Your task to perform on an android device: turn off priority inbox in the gmail app Image 0: 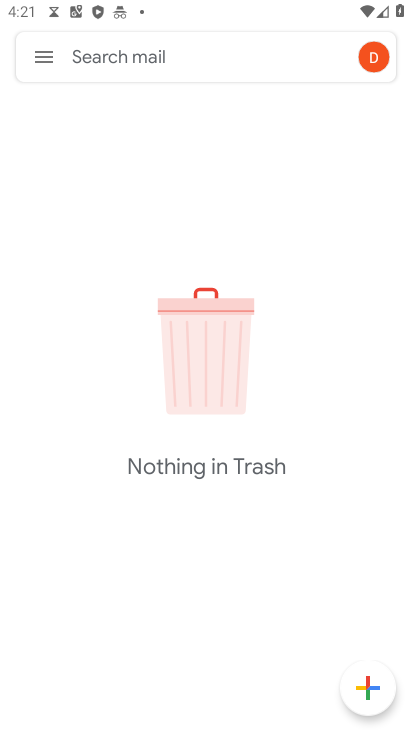
Step 0: press back button
Your task to perform on an android device: turn off priority inbox in the gmail app Image 1: 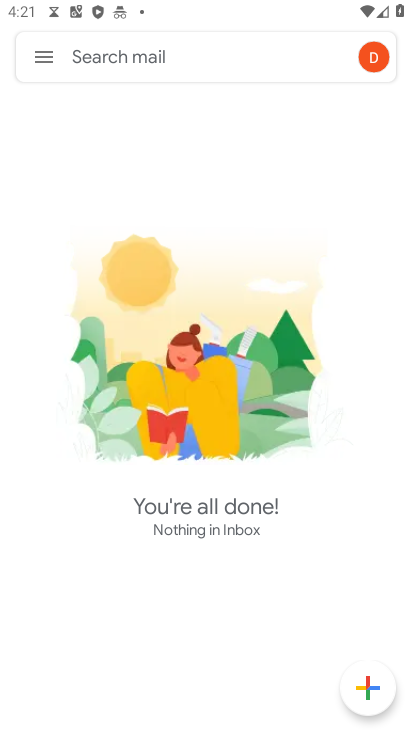
Step 1: click (37, 52)
Your task to perform on an android device: turn off priority inbox in the gmail app Image 2: 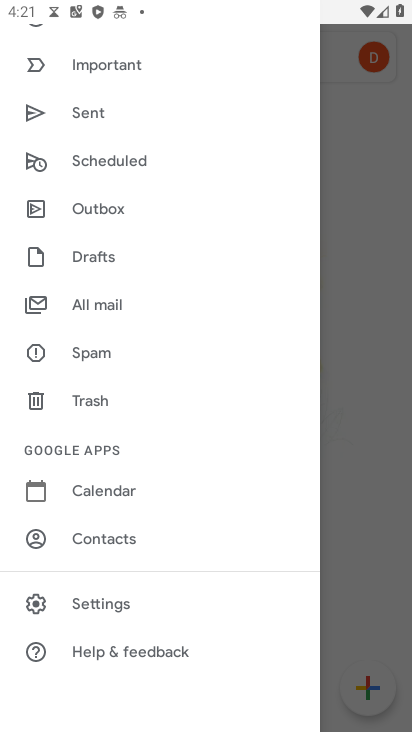
Step 2: click (99, 596)
Your task to perform on an android device: turn off priority inbox in the gmail app Image 3: 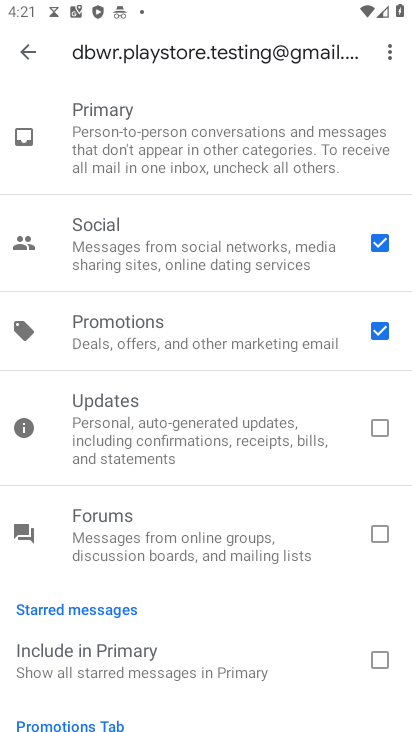
Step 3: click (32, 50)
Your task to perform on an android device: turn off priority inbox in the gmail app Image 4: 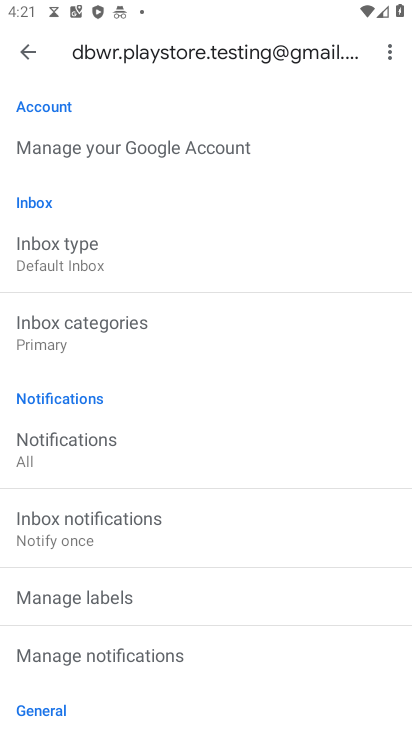
Step 4: click (44, 255)
Your task to perform on an android device: turn off priority inbox in the gmail app Image 5: 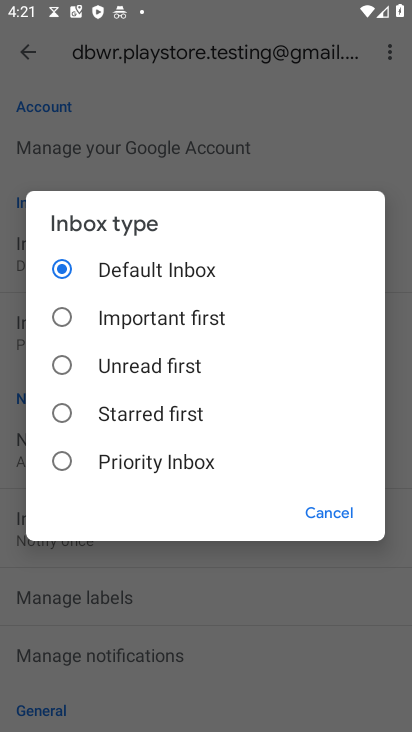
Step 5: click (334, 514)
Your task to perform on an android device: turn off priority inbox in the gmail app Image 6: 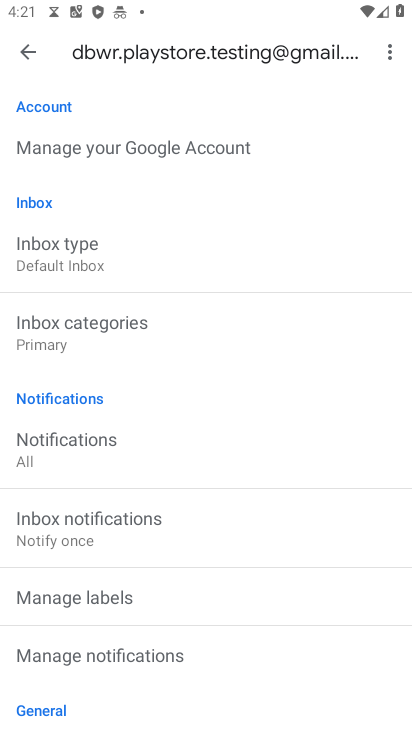
Step 6: click (46, 247)
Your task to perform on an android device: turn off priority inbox in the gmail app Image 7: 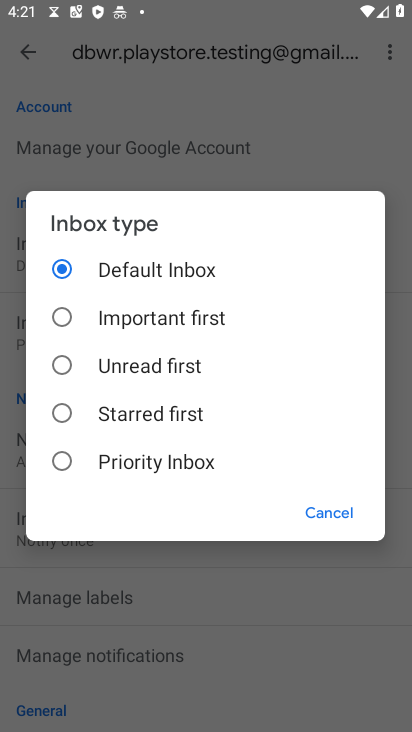
Step 7: click (310, 509)
Your task to perform on an android device: turn off priority inbox in the gmail app Image 8: 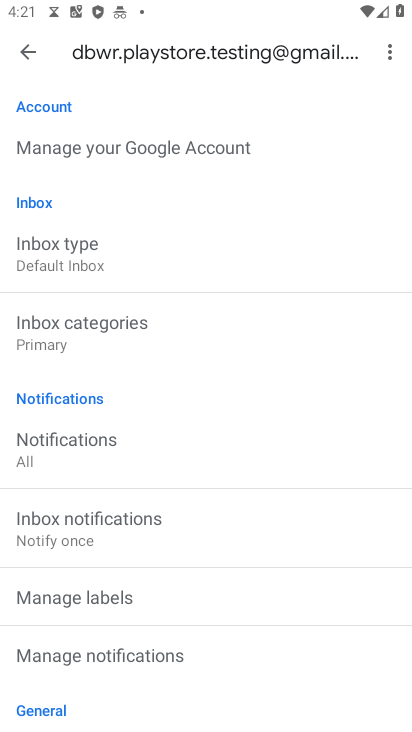
Step 8: task complete